Your task to perform on an android device: turn off notifications settings in the gmail app Image 0: 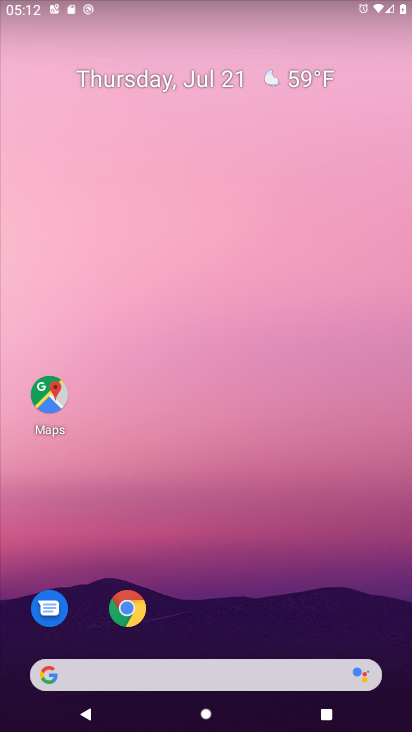
Step 0: drag from (250, 591) to (342, 99)
Your task to perform on an android device: turn off notifications settings in the gmail app Image 1: 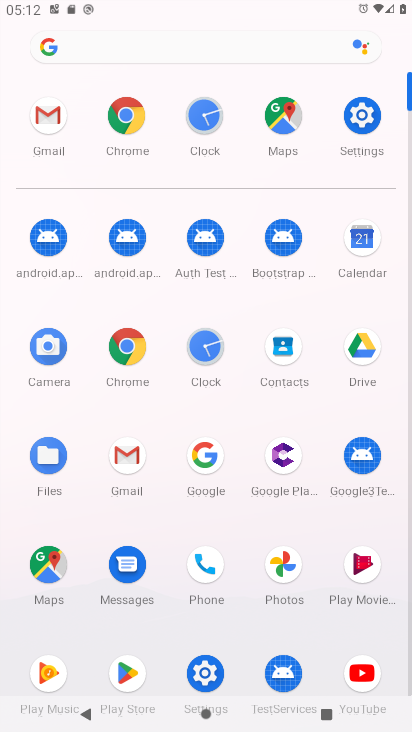
Step 1: click (363, 110)
Your task to perform on an android device: turn off notifications settings in the gmail app Image 2: 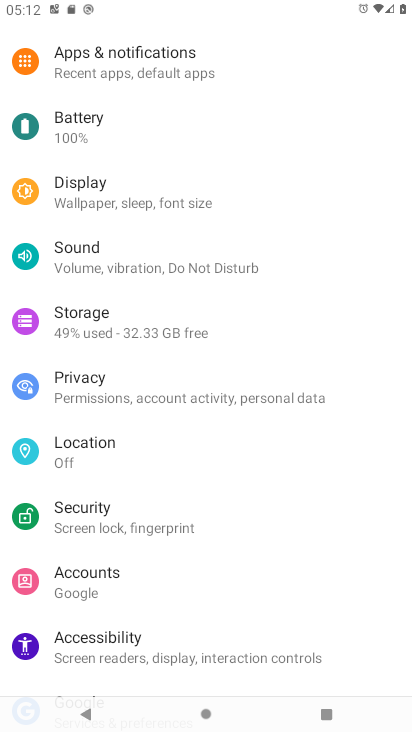
Step 2: click (135, 75)
Your task to perform on an android device: turn off notifications settings in the gmail app Image 3: 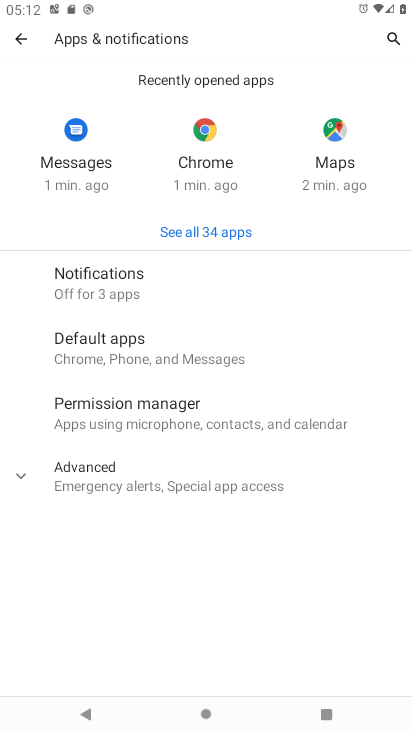
Step 3: click (133, 278)
Your task to perform on an android device: turn off notifications settings in the gmail app Image 4: 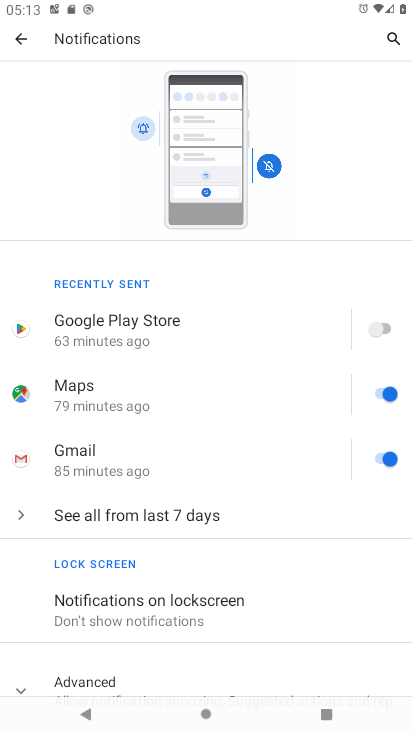
Step 4: click (388, 398)
Your task to perform on an android device: turn off notifications settings in the gmail app Image 5: 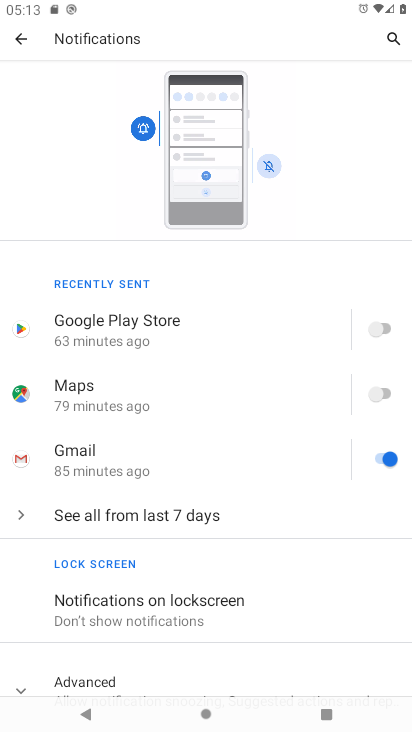
Step 5: task complete